Your task to perform on an android device: Open settings on Google Maps Image 0: 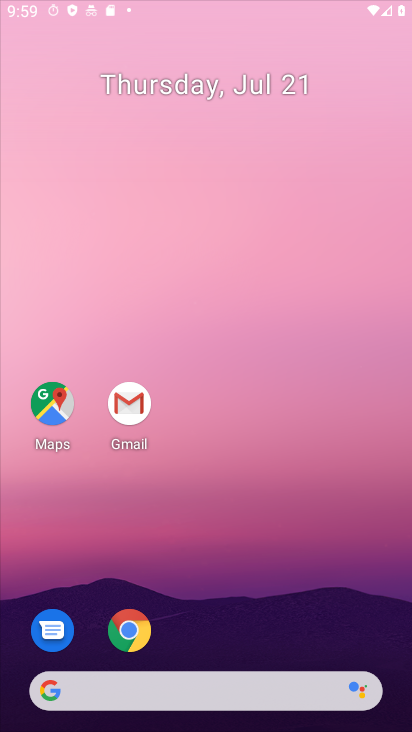
Step 0: drag from (250, 674) to (200, 351)
Your task to perform on an android device: Open settings on Google Maps Image 1: 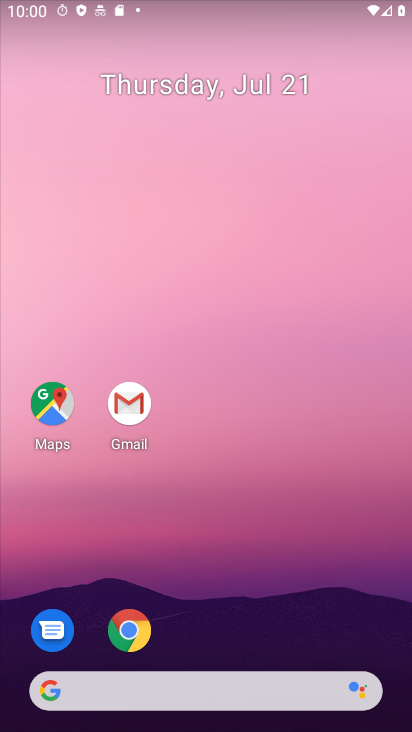
Step 1: drag from (272, 590) to (159, 91)
Your task to perform on an android device: Open settings on Google Maps Image 2: 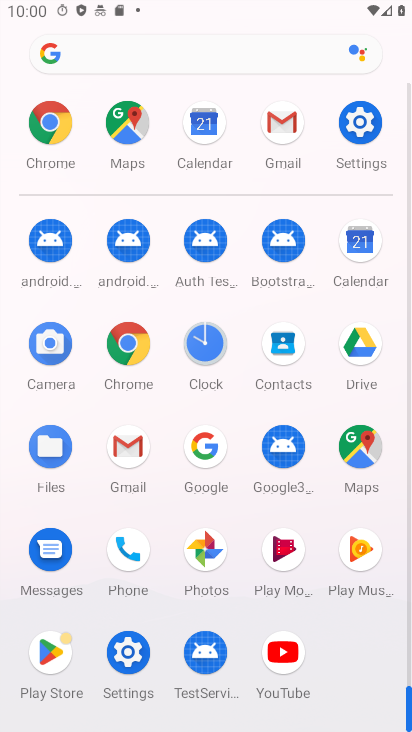
Step 2: click (350, 448)
Your task to perform on an android device: Open settings on Google Maps Image 3: 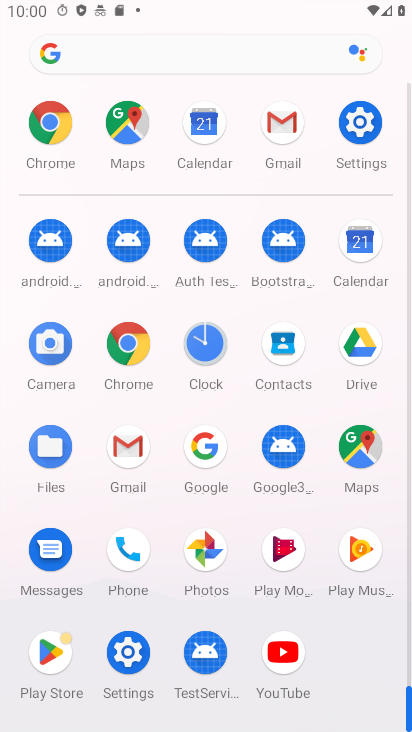
Step 3: click (360, 446)
Your task to perform on an android device: Open settings on Google Maps Image 4: 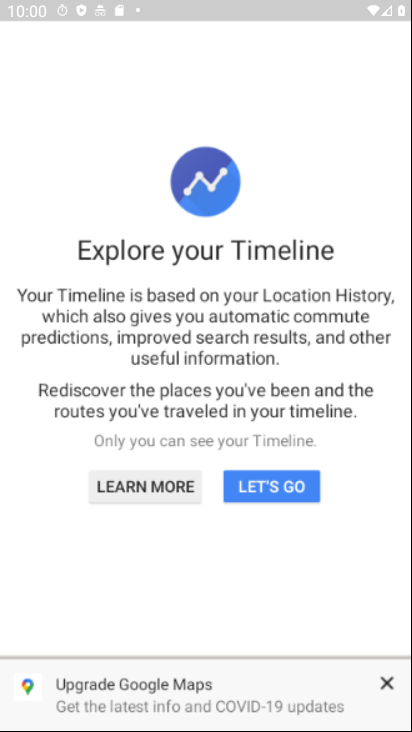
Step 4: click (366, 442)
Your task to perform on an android device: Open settings on Google Maps Image 5: 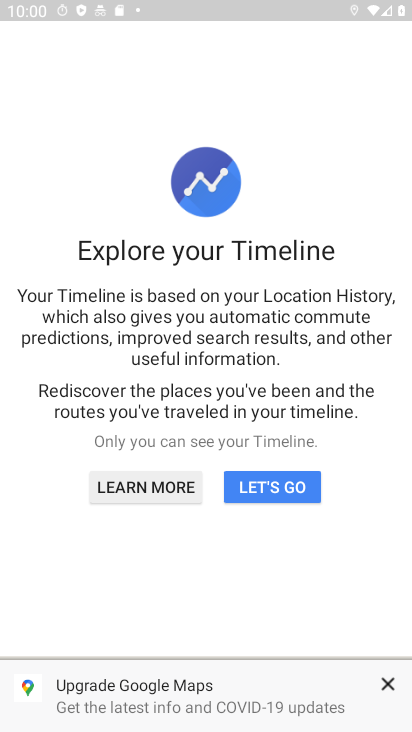
Step 5: click (265, 485)
Your task to perform on an android device: Open settings on Google Maps Image 6: 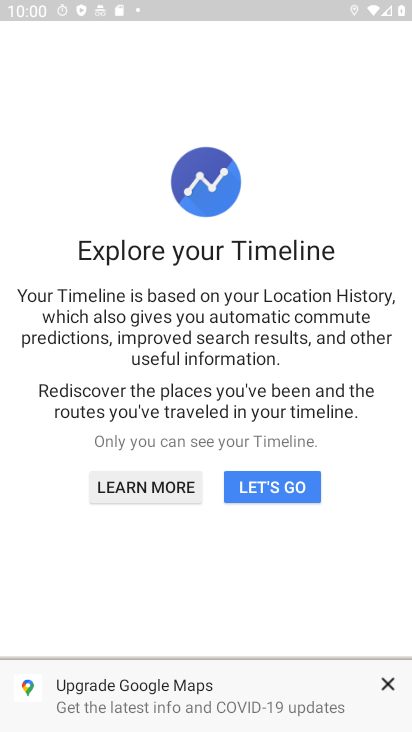
Step 6: click (279, 473)
Your task to perform on an android device: Open settings on Google Maps Image 7: 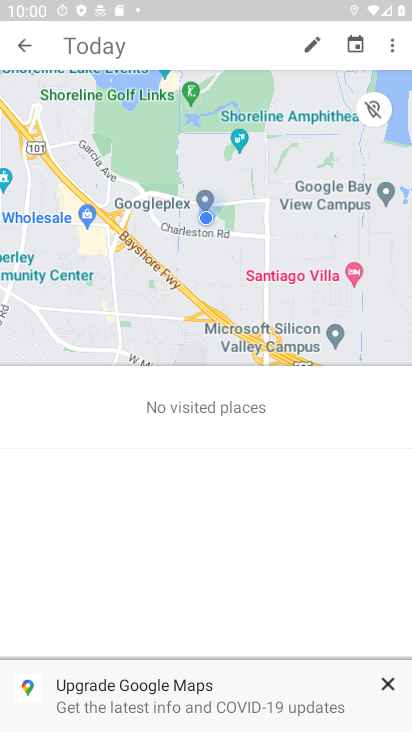
Step 7: click (26, 51)
Your task to perform on an android device: Open settings on Google Maps Image 8: 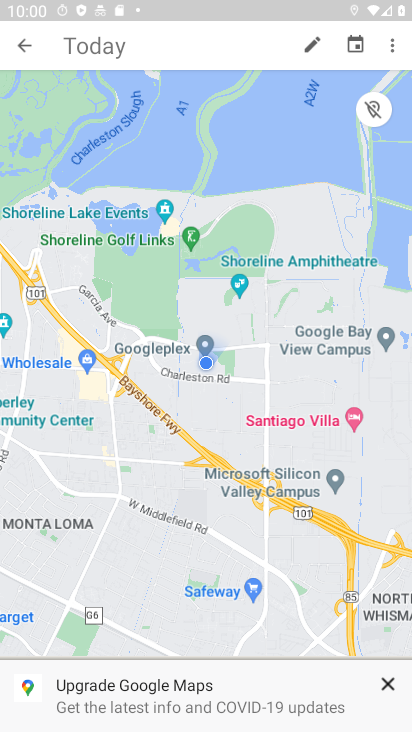
Step 8: click (27, 49)
Your task to perform on an android device: Open settings on Google Maps Image 9: 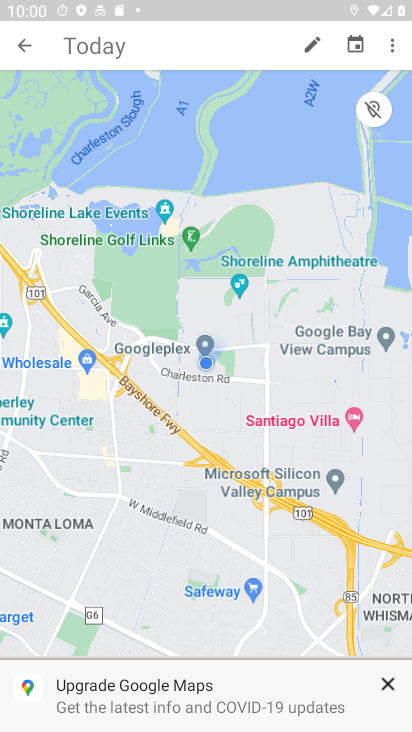
Step 9: click (27, 49)
Your task to perform on an android device: Open settings on Google Maps Image 10: 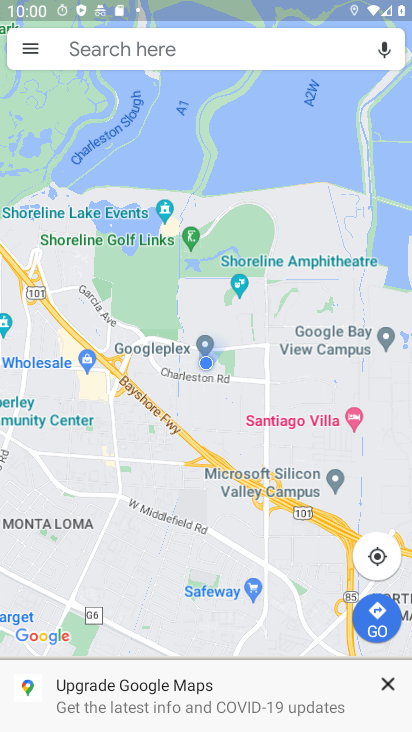
Step 10: click (32, 50)
Your task to perform on an android device: Open settings on Google Maps Image 11: 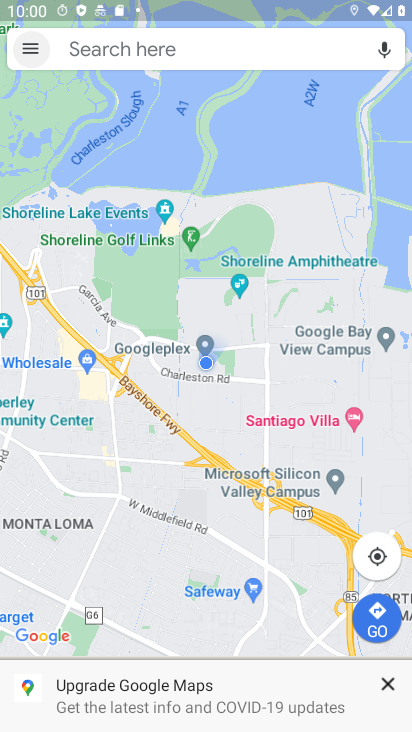
Step 11: click (32, 50)
Your task to perform on an android device: Open settings on Google Maps Image 12: 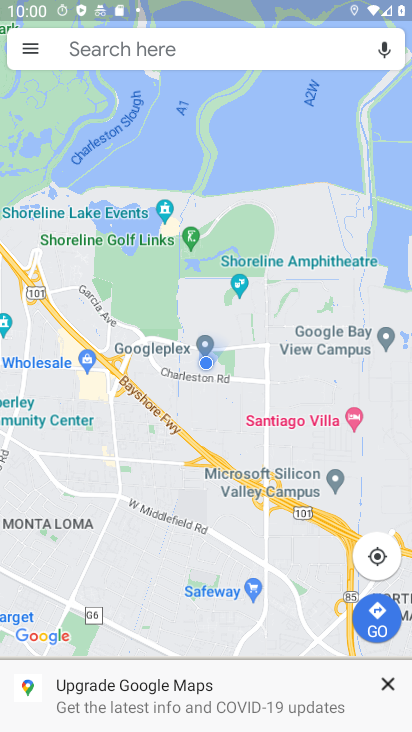
Step 12: click (38, 45)
Your task to perform on an android device: Open settings on Google Maps Image 13: 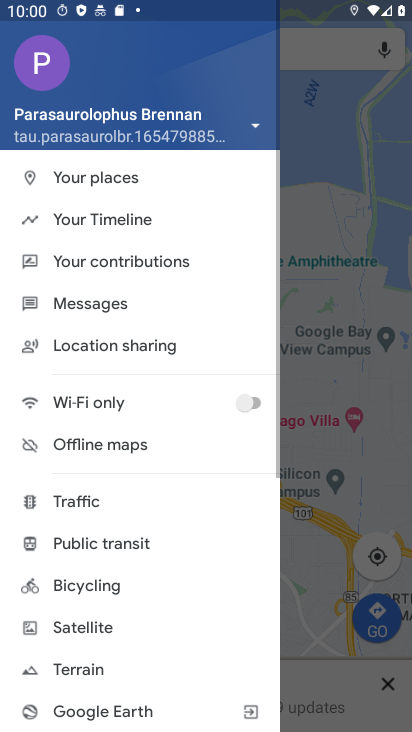
Step 13: drag from (107, 587) to (147, 195)
Your task to perform on an android device: Open settings on Google Maps Image 14: 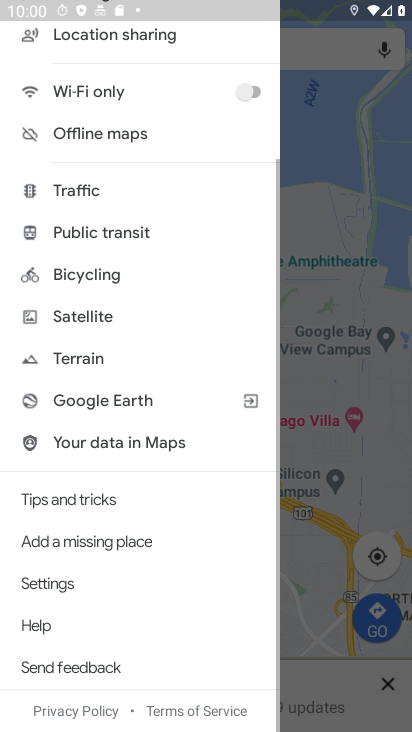
Step 14: drag from (145, 553) to (192, 138)
Your task to perform on an android device: Open settings on Google Maps Image 15: 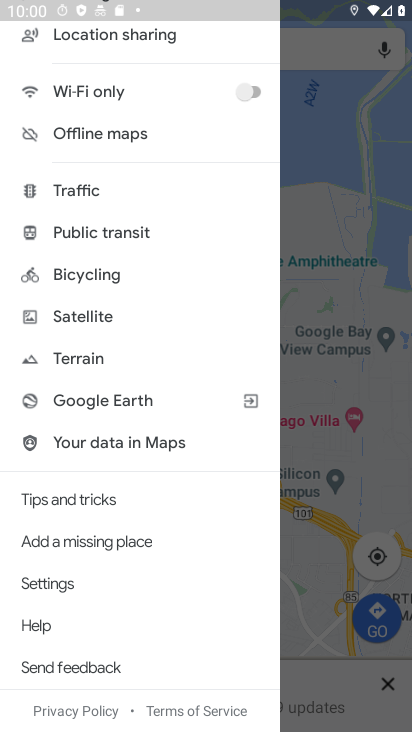
Step 15: click (39, 578)
Your task to perform on an android device: Open settings on Google Maps Image 16: 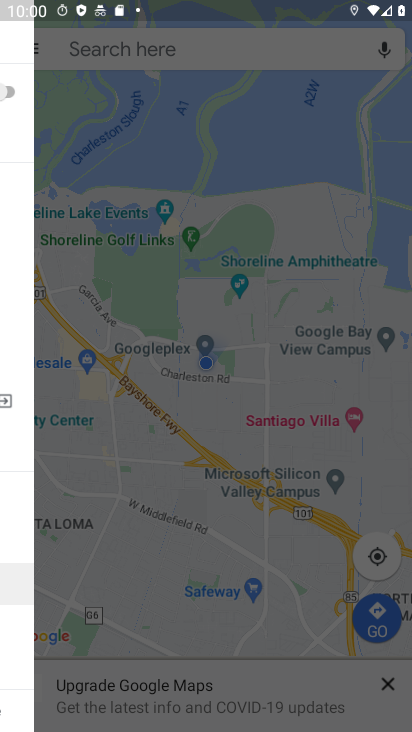
Step 16: click (44, 574)
Your task to perform on an android device: Open settings on Google Maps Image 17: 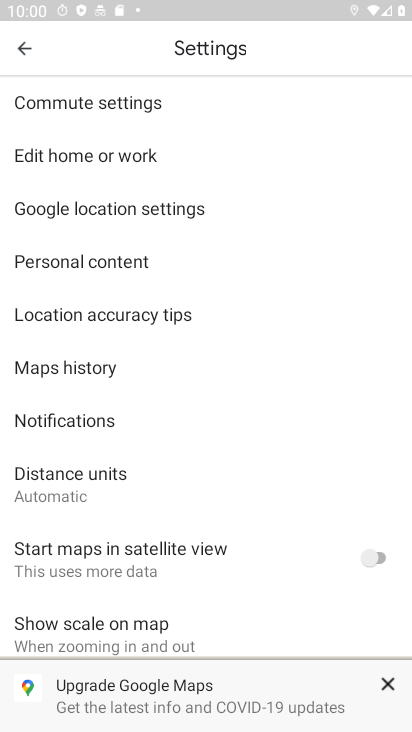
Step 17: task complete